Your task to perform on an android device: Go to Google Image 0: 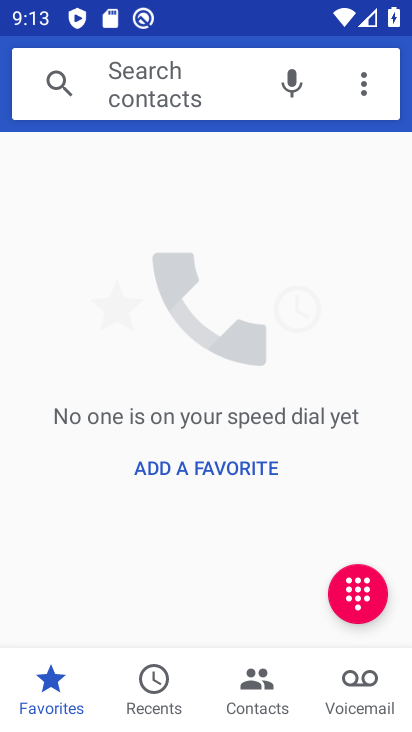
Step 0: press home button
Your task to perform on an android device: Go to Google Image 1: 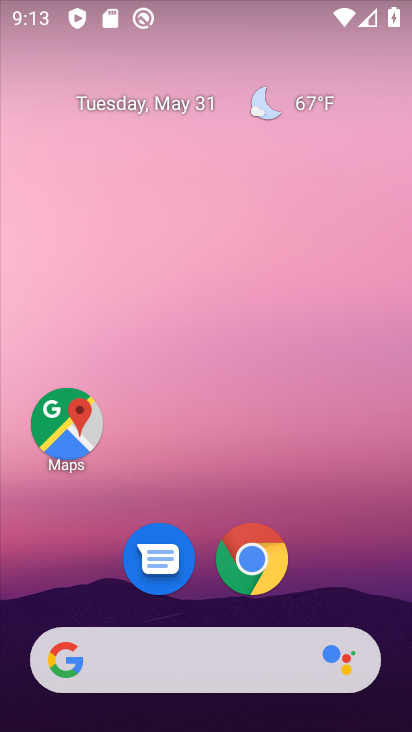
Step 1: drag from (329, 578) to (301, 30)
Your task to perform on an android device: Go to Google Image 2: 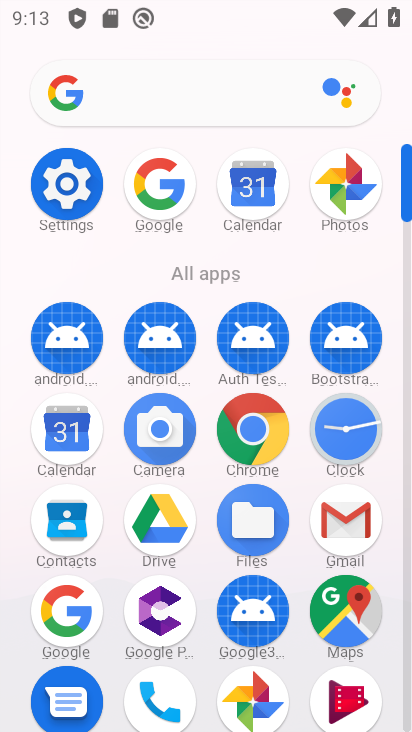
Step 2: click (160, 184)
Your task to perform on an android device: Go to Google Image 3: 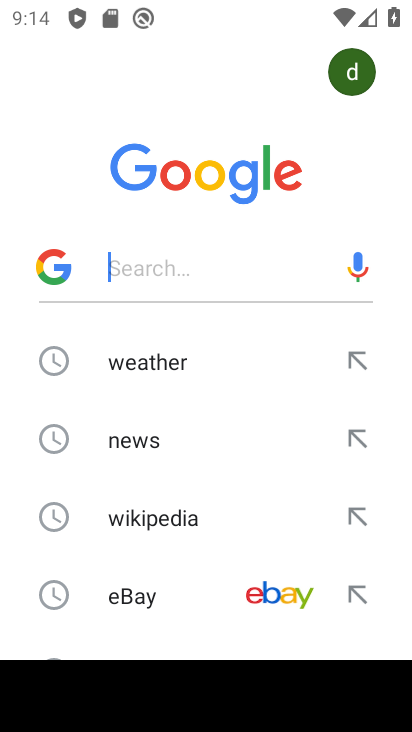
Step 3: task complete